Your task to perform on an android device: Open location settings Image 0: 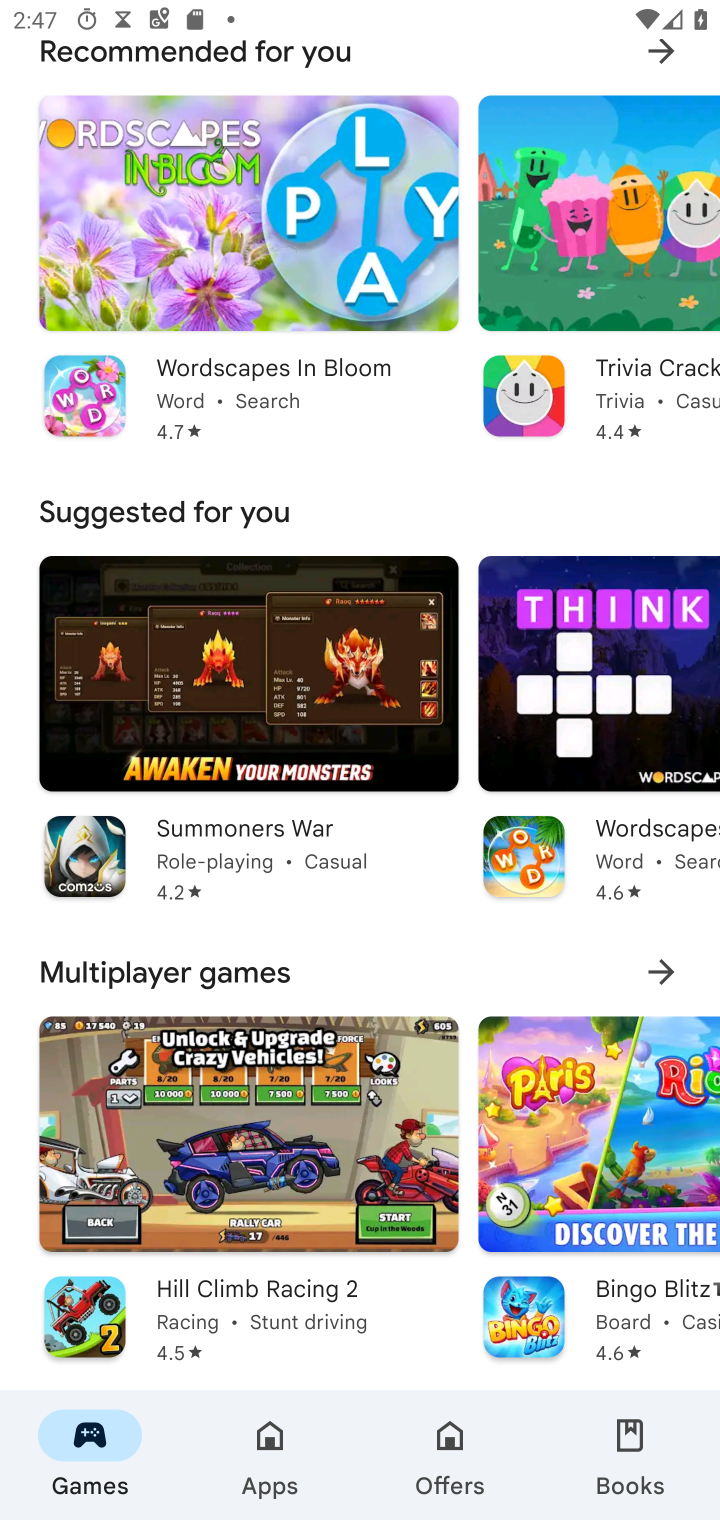
Step 0: press home button
Your task to perform on an android device: Open location settings Image 1: 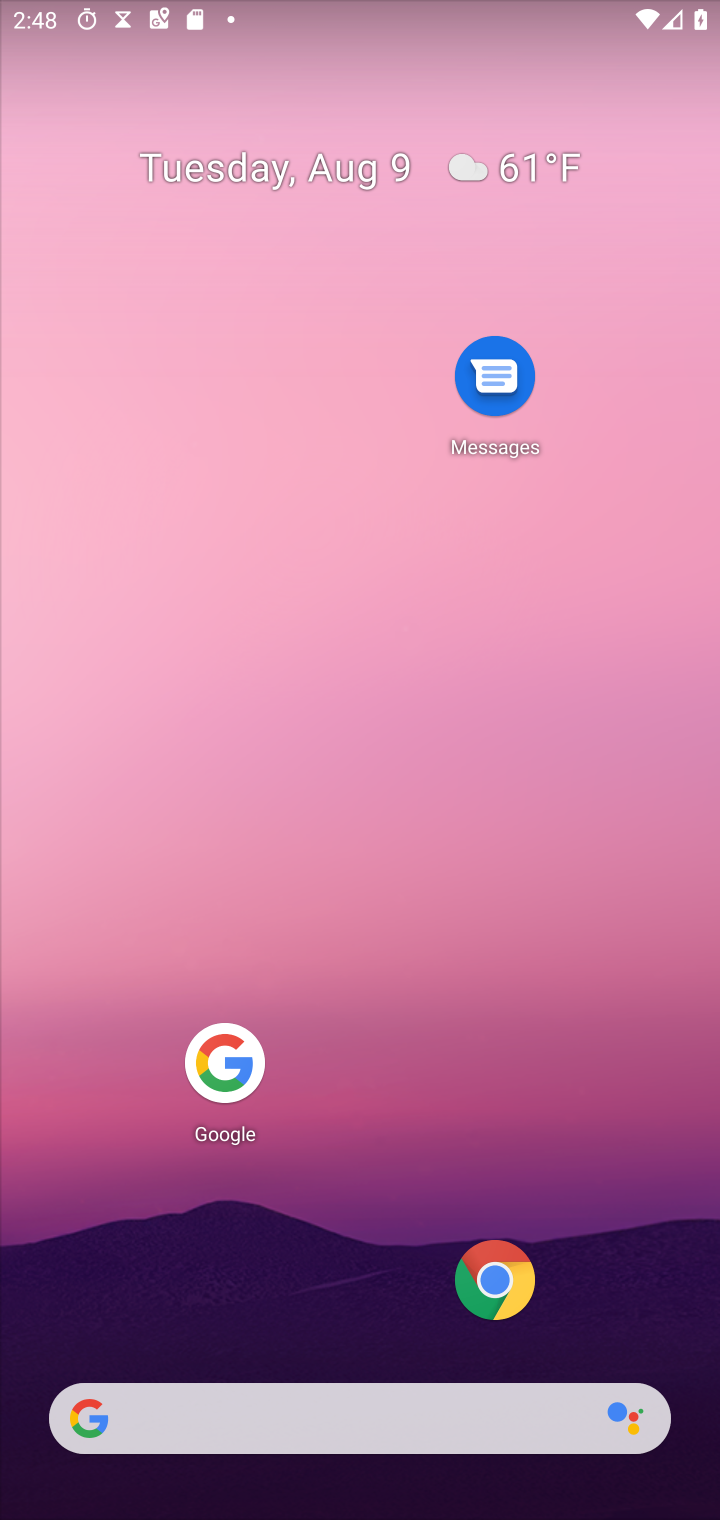
Step 1: drag from (346, 1415) to (423, 206)
Your task to perform on an android device: Open location settings Image 2: 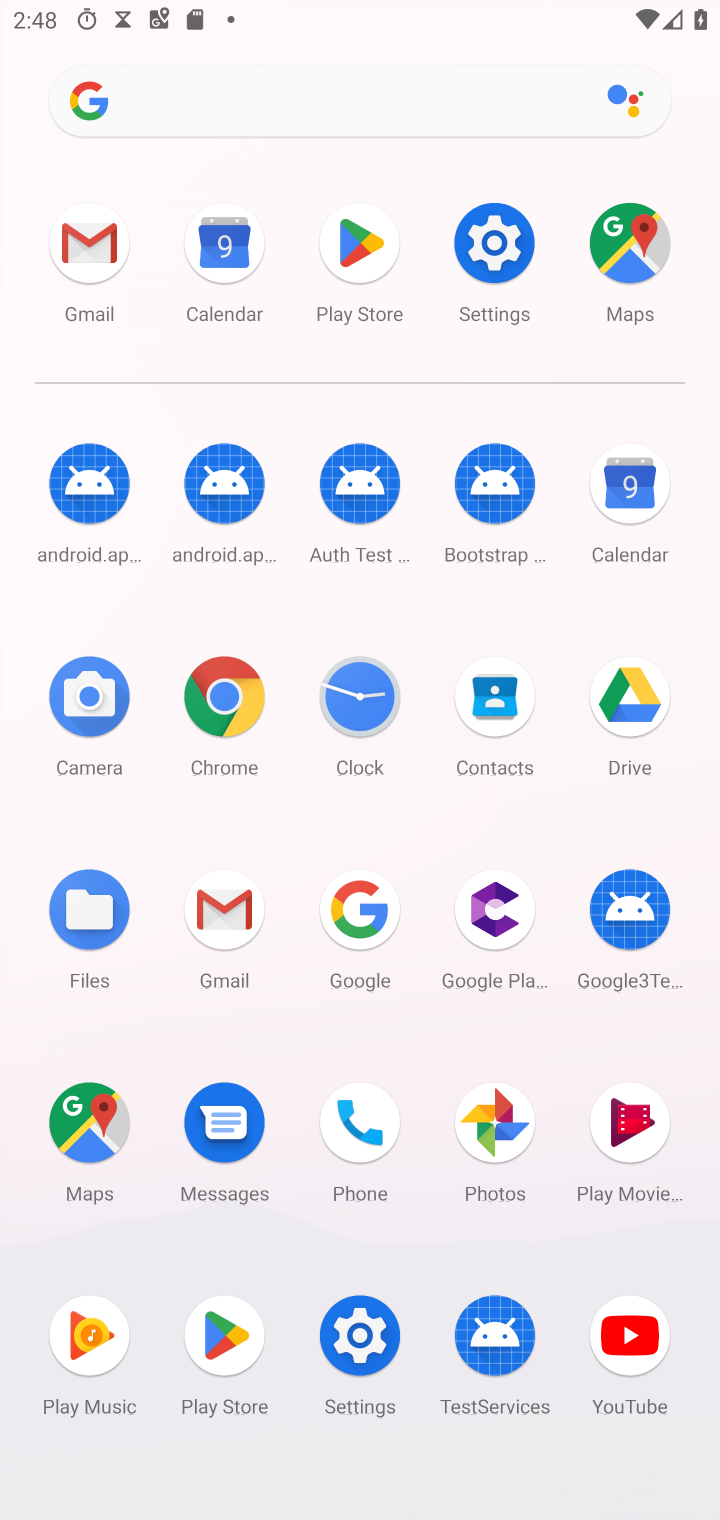
Step 2: click (496, 232)
Your task to perform on an android device: Open location settings Image 3: 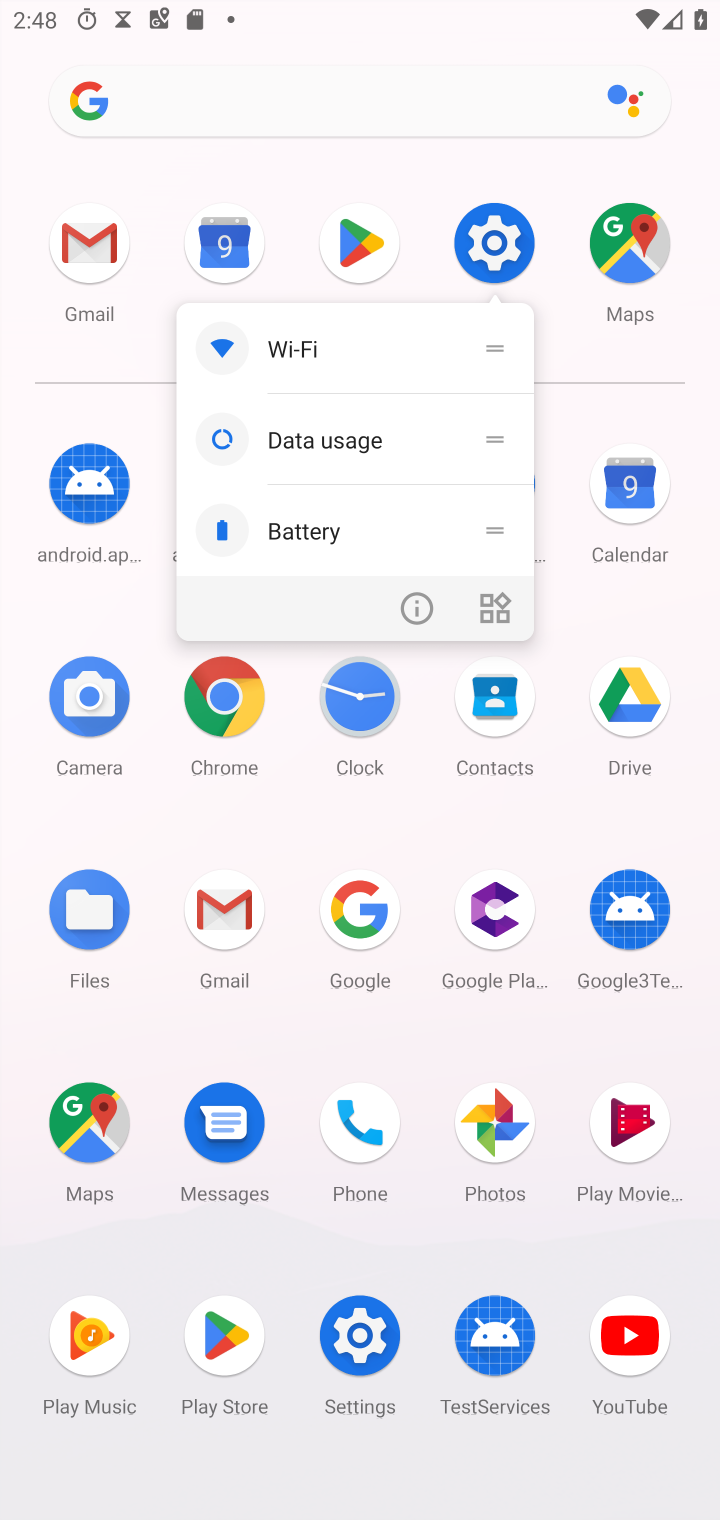
Step 3: click (502, 243)
Your task to perform on an android device: Open location settings Image 4: 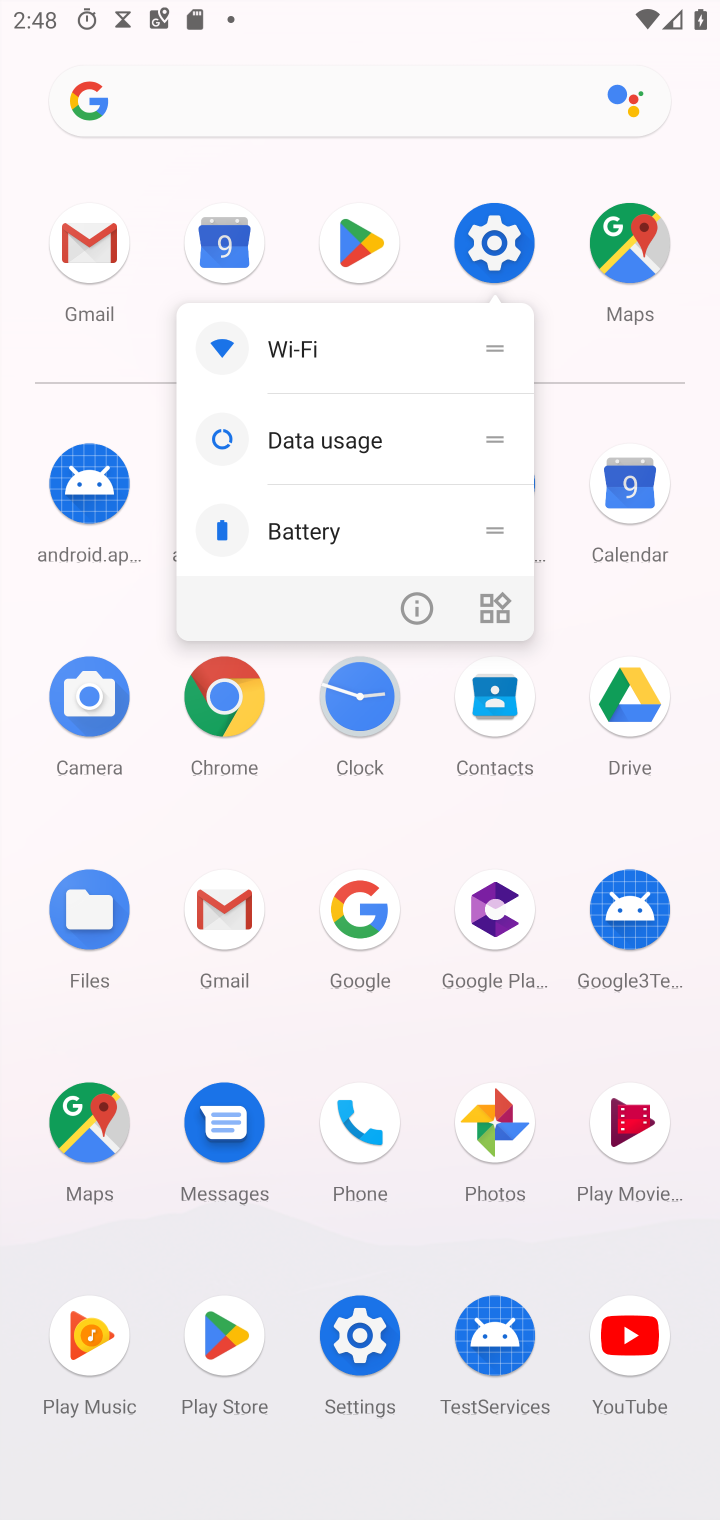
Step 4: click (503, 259)
Your task to perform on an android device: Open location settings Image 5: 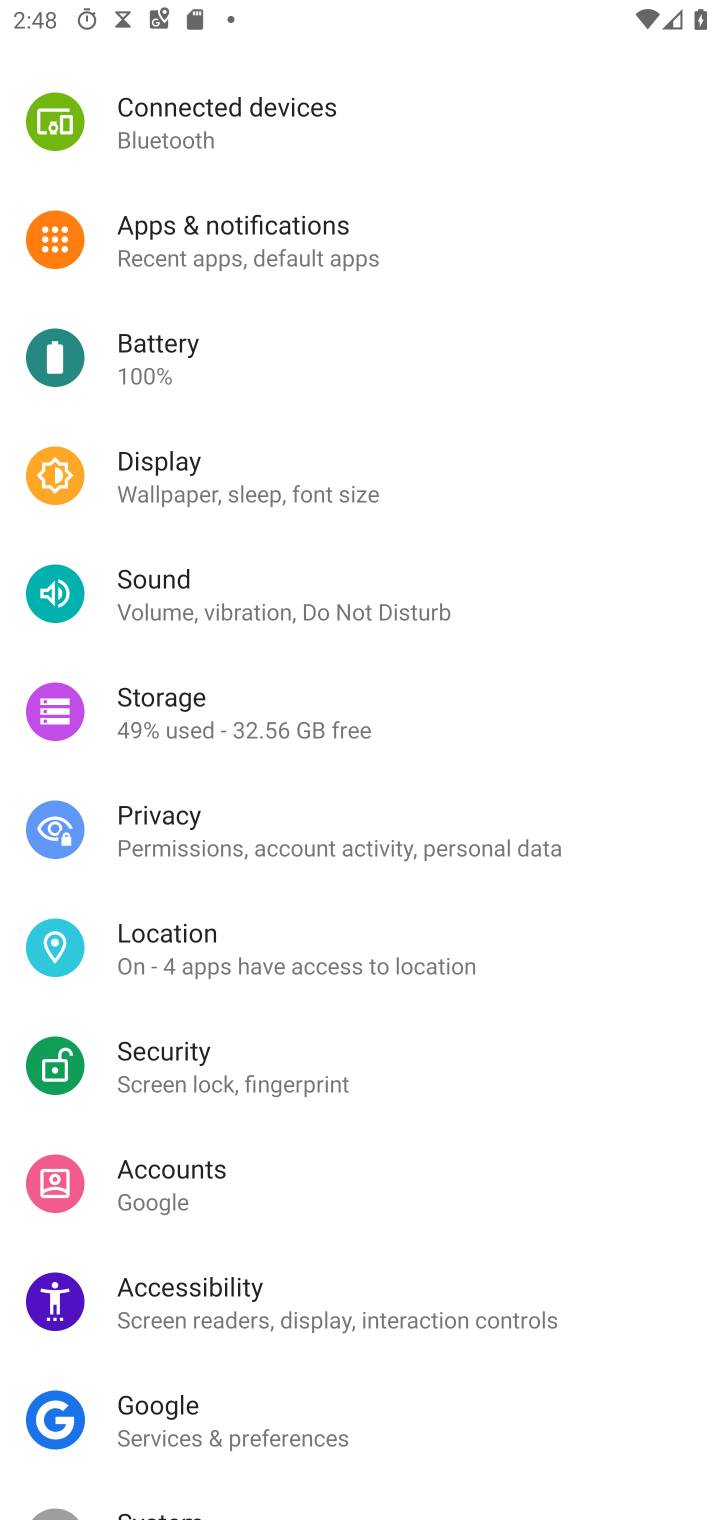
Step 5: click (212, 953)
Your task to perform on an android device: Open location settings Image 6: 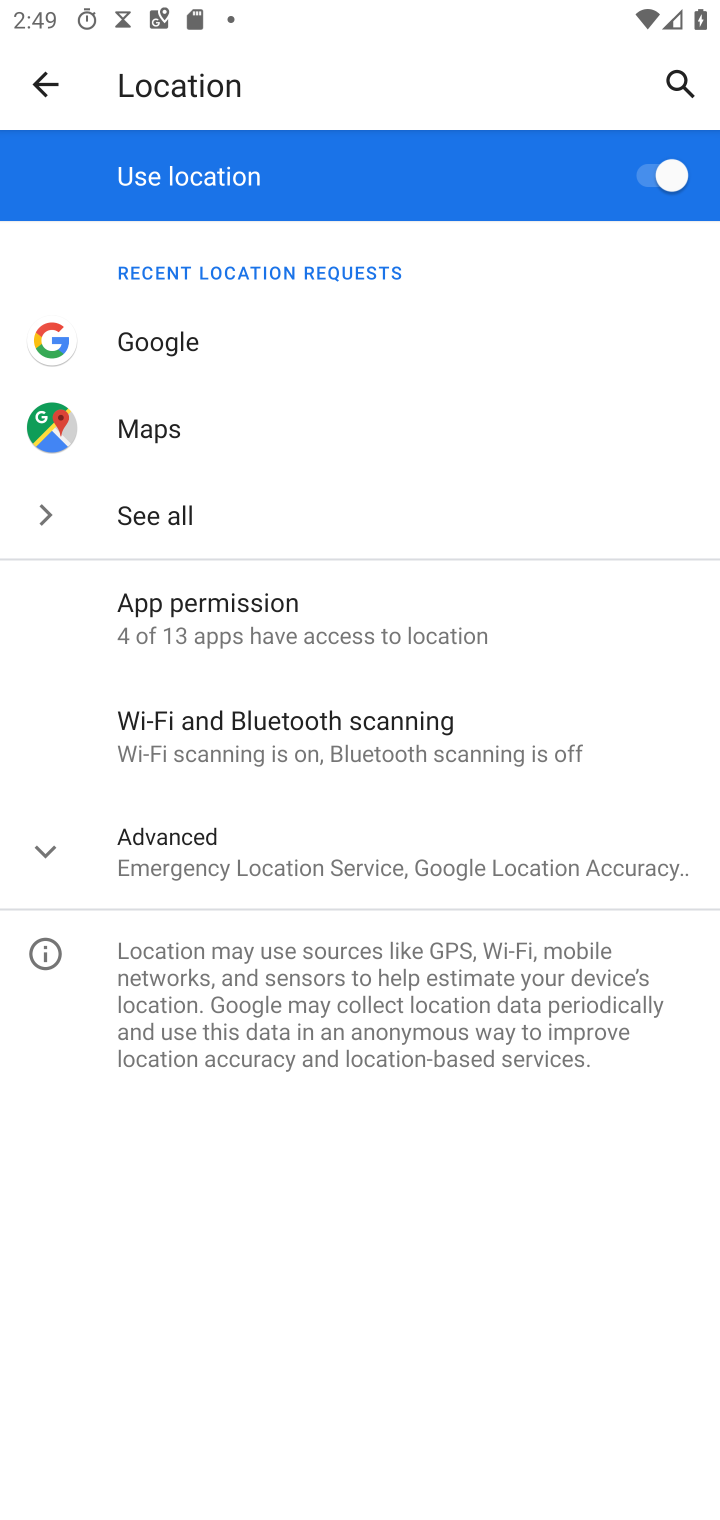
Step 6: task complete